Your task to perform on an android device: Open the Play Movies app and select the watchlist tab. Image 0: 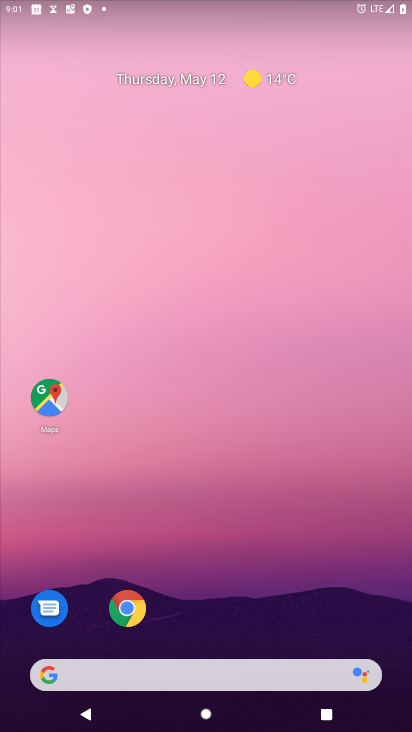
Step 0: drag from (205, 631) to (249, 224)
Your task to perform on an android device: Open the Play Movies app and select the watchlist tab. Image 1: 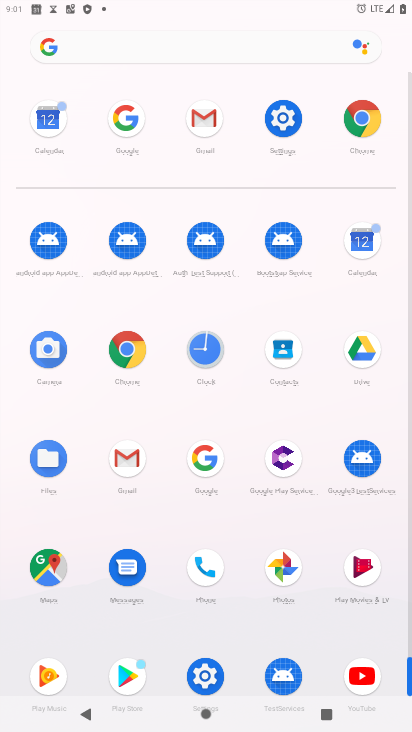
Step 1: click (363, 580)
Your task to perform on an android device: Open the Play Movies app and select the watchlist tab. Image 2: 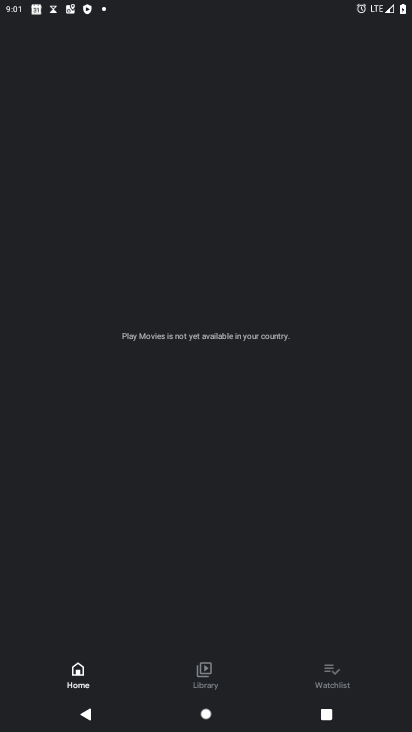
Step 2: click (338, 673)
Your task to perform on an android device: Open the Play Movies app and select the watchlist tab. Image 3: 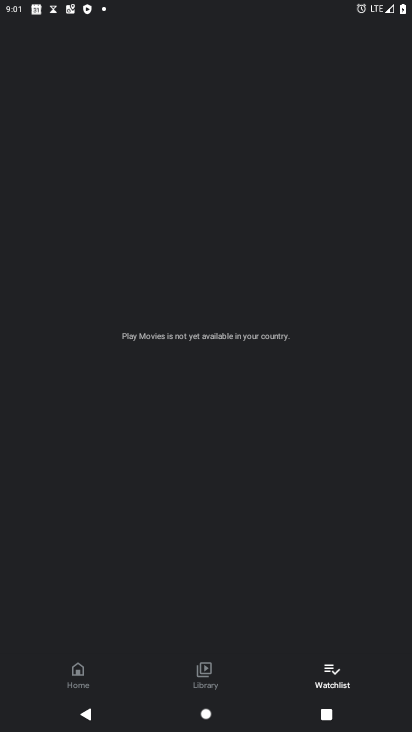
Step 3: task complete